Your task to perform on an android device: Open Google Image 0: 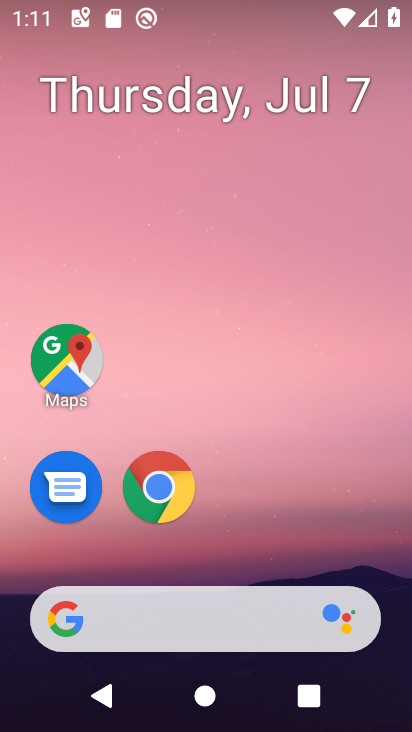
Step 0: drag from (378, 510) to (380, 109)
Your task to perform on an android device: Open Google Image 1: 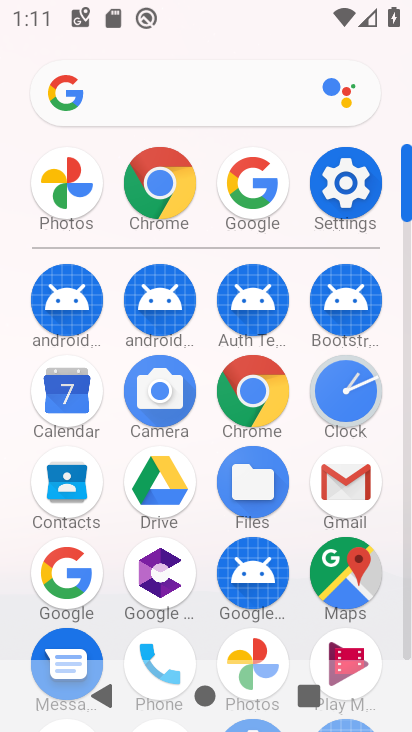
Step 1: click (77, 575)
Your task to perform on an android device: Open Google Image 2: 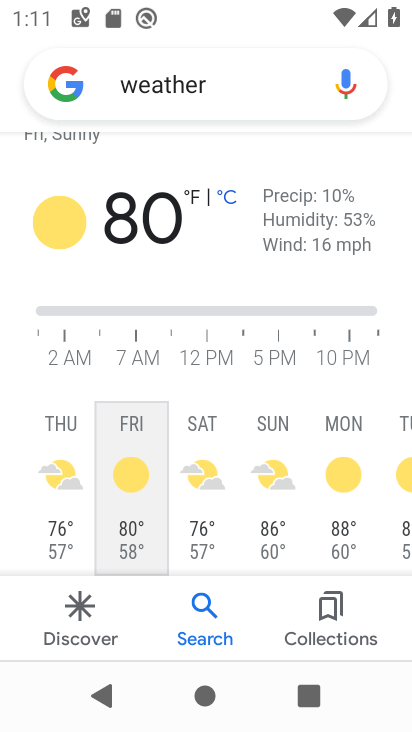
Step 2: task complete